Your task to perform on an android device: toggle data saver in the chrome app Image 0: 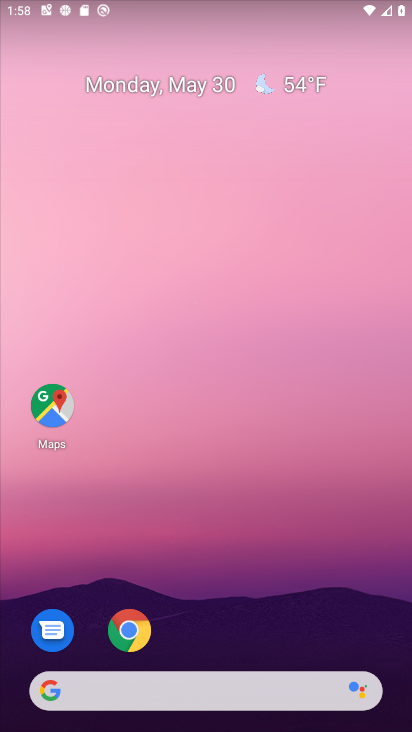
Step 0: press home button
Your task to perform on an android device: toggle data saver in the chrome app Image 1: 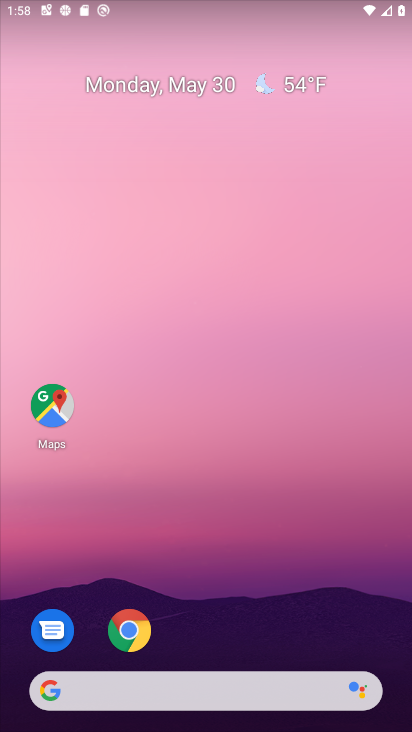
Step 1: click (125, 623)
Your task to perform on an android device: toggle data saver in the chrome app Image 2: 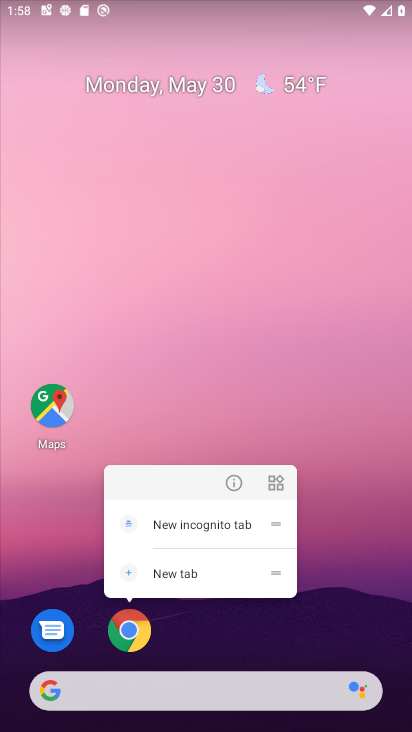
Step 2: click (140, 643)
Your task to perform on an android device: toggle data saver in the chrome app Image 3: 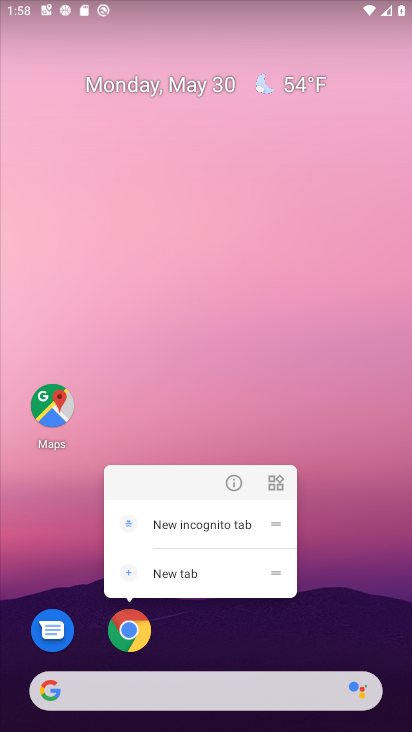
Step 3: click (130, 633)
Your task to perform on an android device: toggle data saver in the chrome app Image 4: 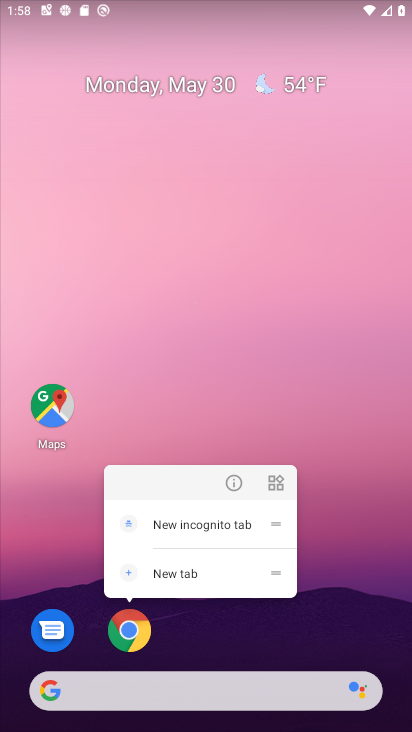
Step 4: click (124, 641)
Your task to perform on an android device: toggle data saver in the chrome app Image 5: 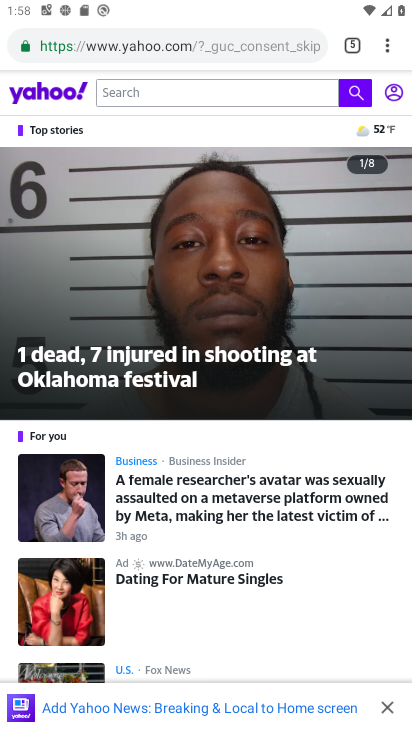
Step 5: drag from (387, 52) to (240, 553)
Your task to perform on an android device: toggle data saver in the chrome app Image 6: 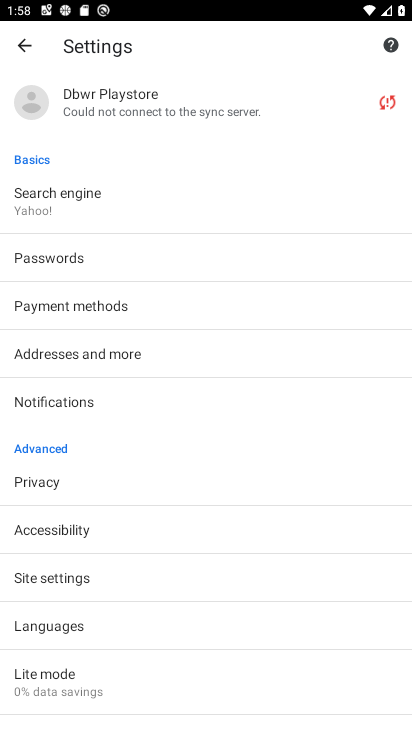
Step 6: click (82, 686)
Your task to perform on an android device: toggle data saver in the chrome app Image 7: 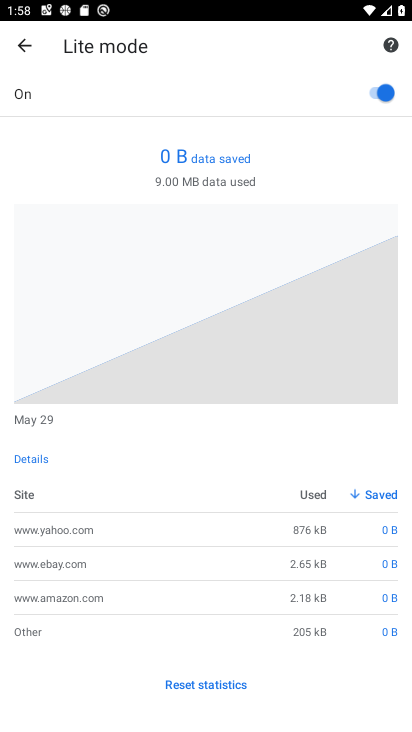
Step 7: click (375, 91)
Your task to perform on an android device: toggle data saver in the chrome app Image 8: 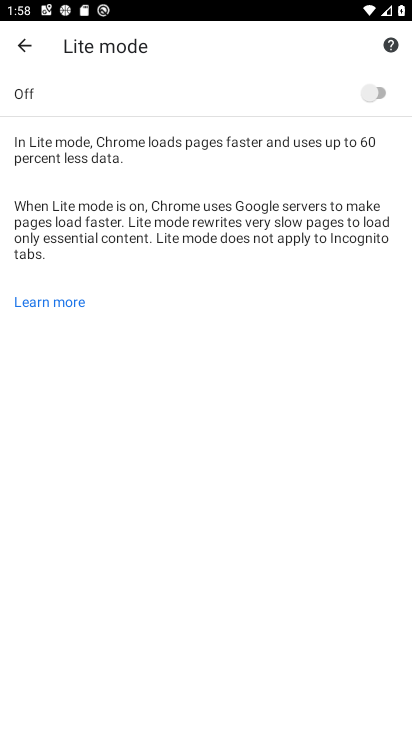
Step 8: task complete